Your task to perform on an android device: check google app version Image 0: 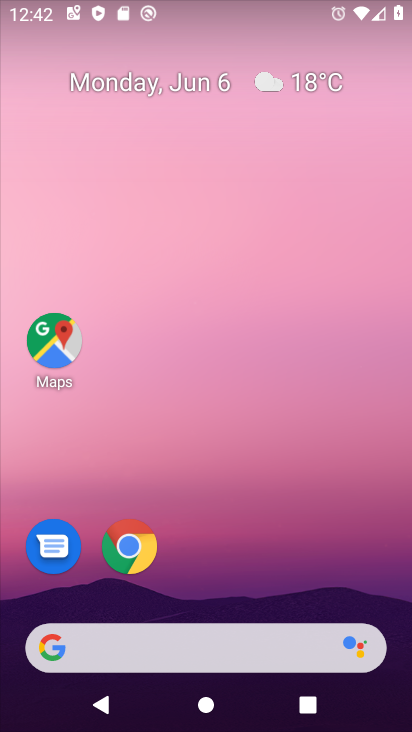
Step 0: drag from (264, 602) to (261, 264)
Your task to perform on an android device: check google app version Image 1: 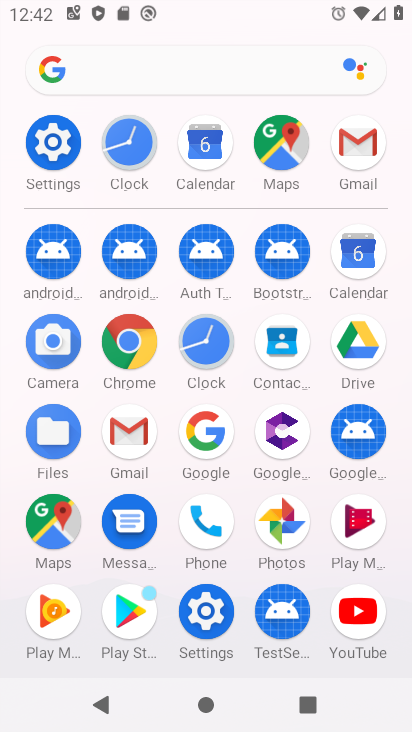
Step 1: click (216, 439)
Your task to perform on an android device: check google app version Image 2: 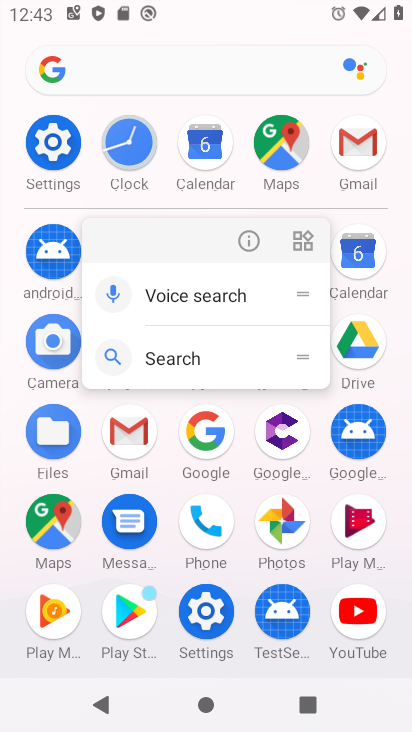
Step 2: click (249, 246)
Your task to perform on an android device: check google app version Image 3: 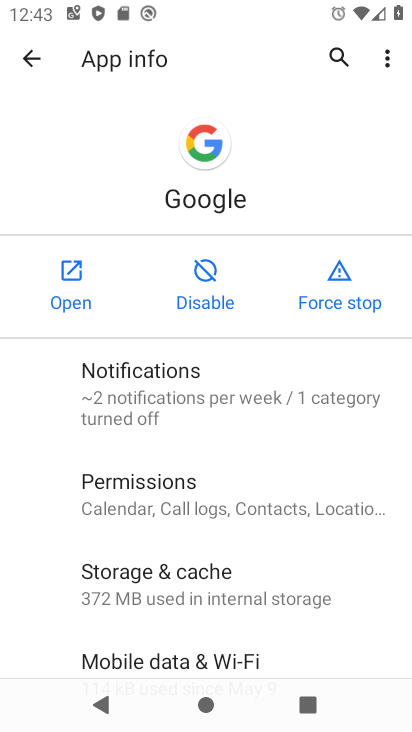
Step 3: drag from (44, 634) to (47, 354)
Your task to perform on an android device: check google app version Image 4: 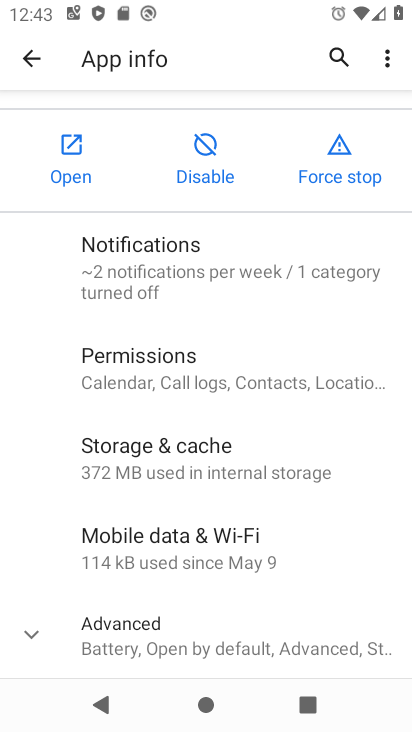
Step 4: click (32, 640)
Your task to perform on an android device: check google app version Image 5: 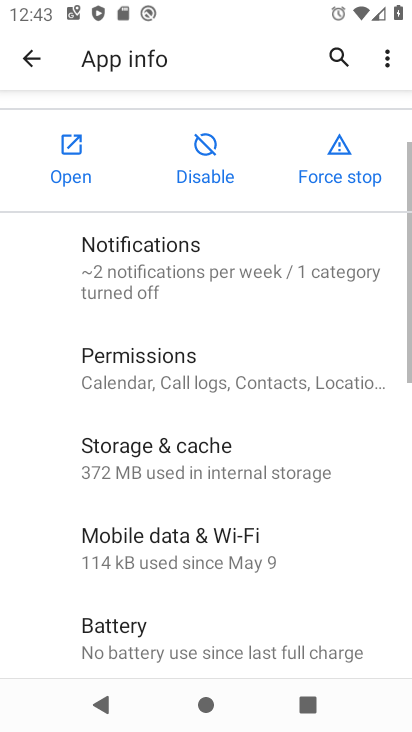
Step 5: task complete